Your task to perform on an android device: refresh tabs in the chrome app Image 0: 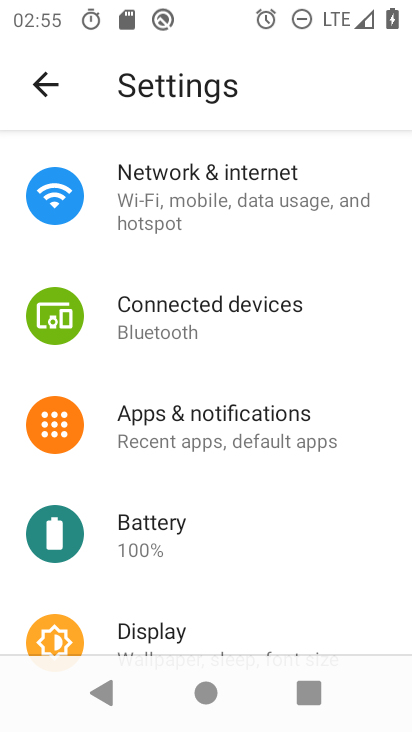
Step 0: press home button
Your task to perform on an android device: refresh tabs in the chrome app Image 1: 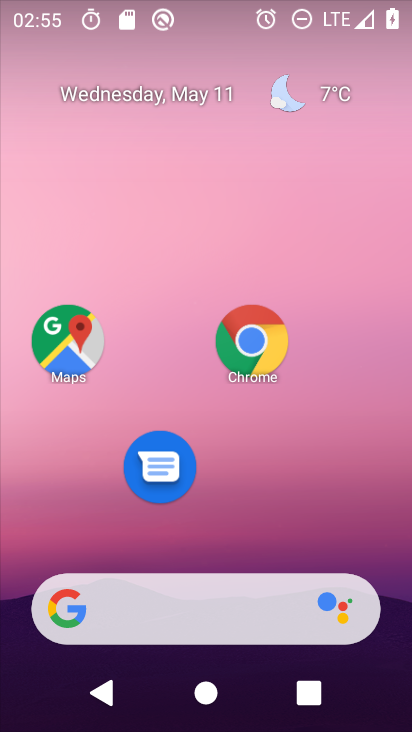
Step 1: drag from (169, 608) to (326, 120)
Your task to perform on an android device: refresh tabs in the chrome app Image 2: 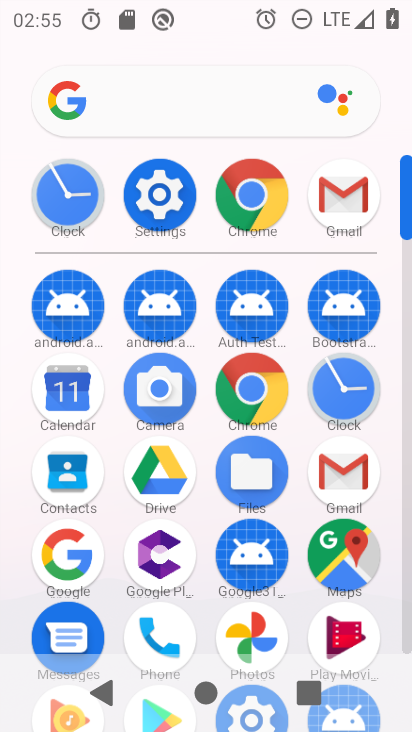
Step 2: click (263, 205)
Your task to perform on an android device: refresh tabs in the chrome app Image 3: 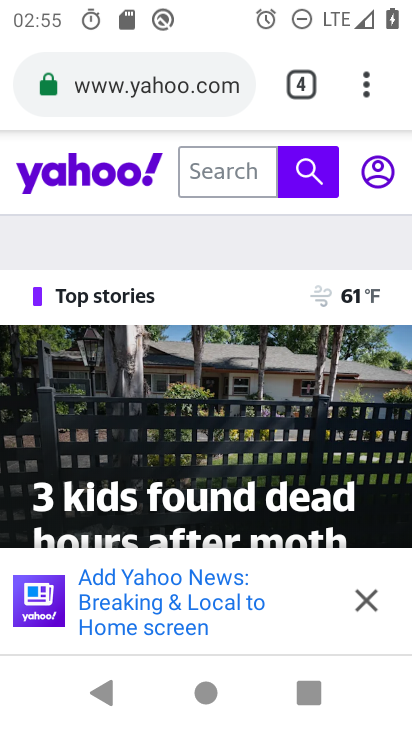
Step 3: click (361, 112)
Your task to perform on an android device: refresh tabs in the chrome app Image 4: 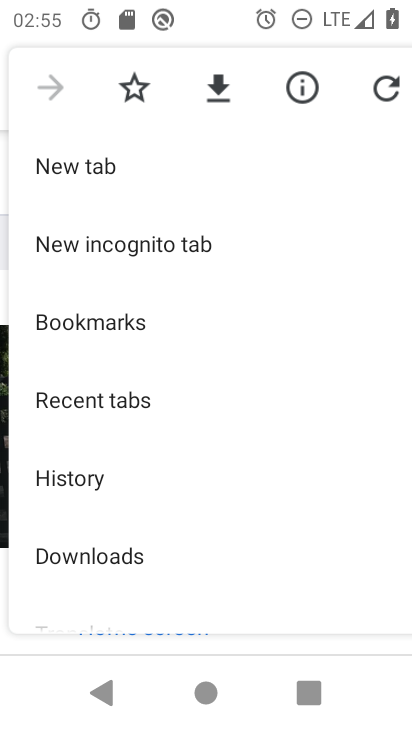
Step 4: click (379, 94)
Your task to perform on an android device: refresh tabs in the chrome app Image 5: 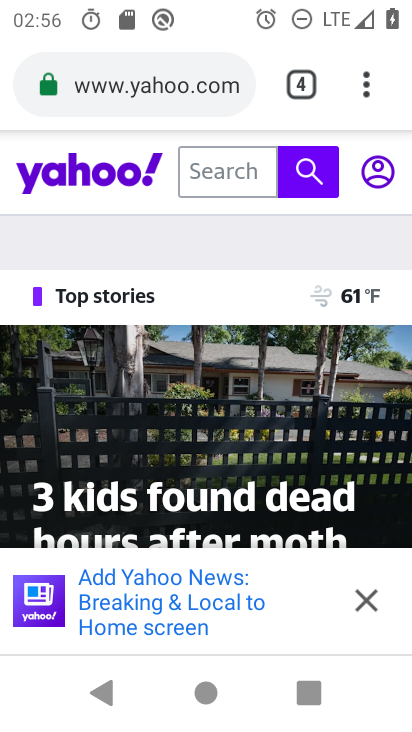
Step 5: task complete